Your task to perform on an android device: uninstall "Yahoo Mail" Image 0: 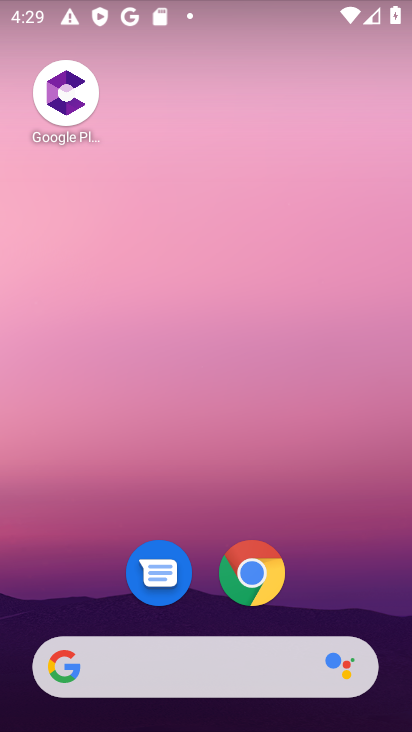
Step 0: drag from (261, 625) to (271, 232)
Your task to perform on an android device: uninstall "Yahoo Mail" Image 1: 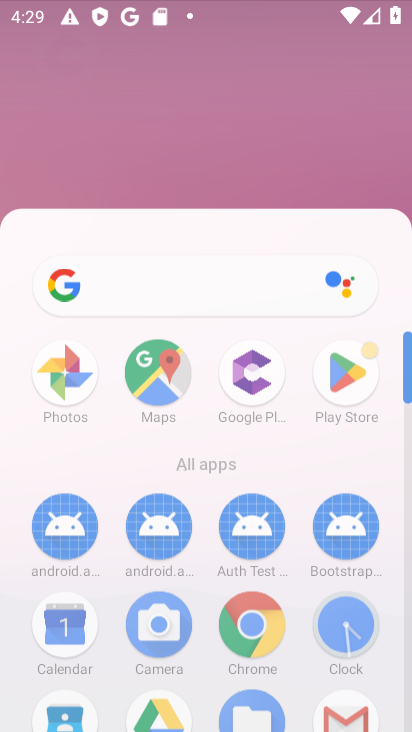
Step 1: drag from (247, 511) to (235, 285)
Your task to perform on an android device: uninstall "Yahoo Mail" Image 2: 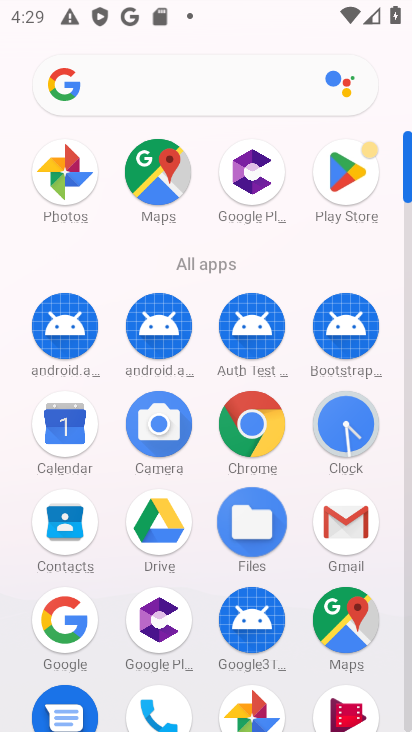
Step 2: drag from (244, 510) to (246, 351)
Your task to perform on an android device: uninstall "Yahoo Mail" Image 3: 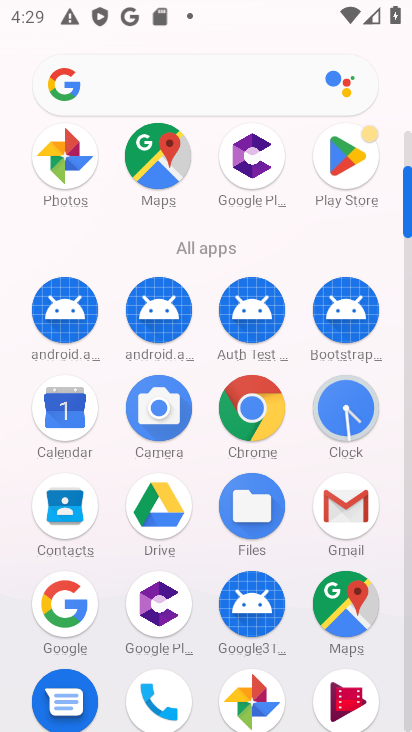
Step 3: click (345, 160)
Your task to perform on an android device: uninstall "Yahoo Mail" Image 4: 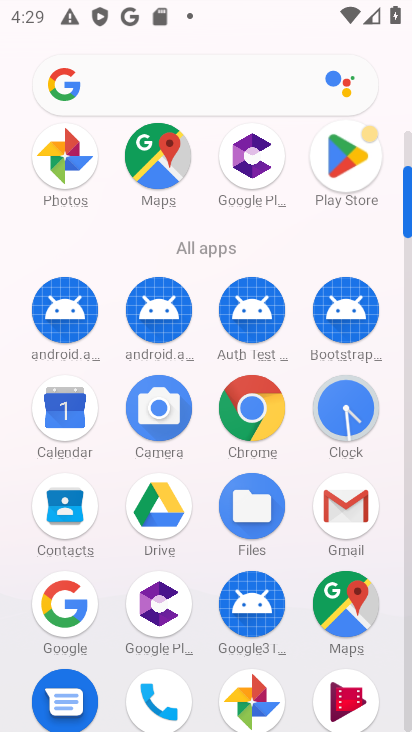
Step 4: click (345, 160)
Your task to perform on an android device: uninstall "Yahoo Mail" Image 5: 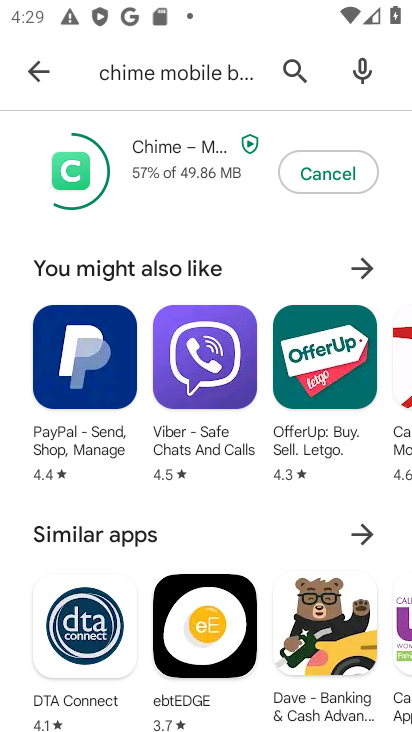
Step 5: click (43, 64)
Your task to perform on an android device: uninstall "Yahoo Mail" Image 6: 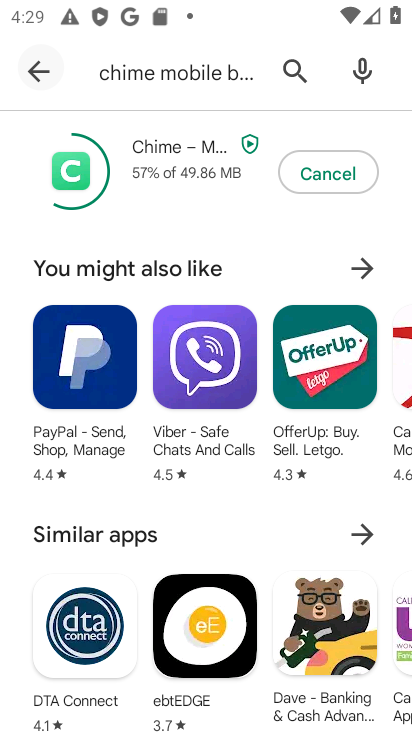
Step 6: click (42, 63)
Your task to perform on an android device: uninstall "Yahoo Mail" Image 7: 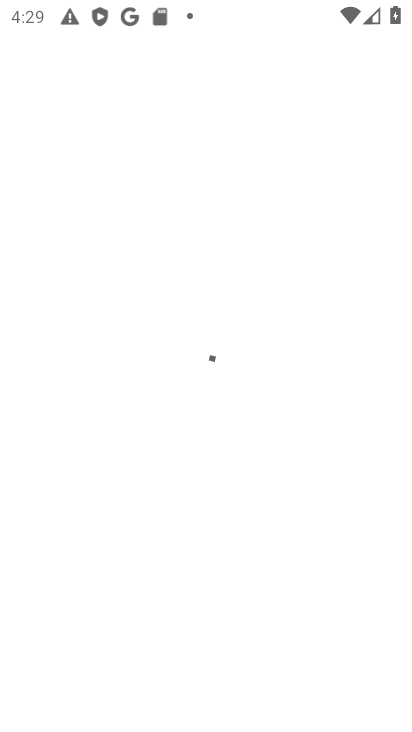
Step 7: click (42, 63)
Your task to perform on an android device: uninstall "Yahoo Mail" Image 8: 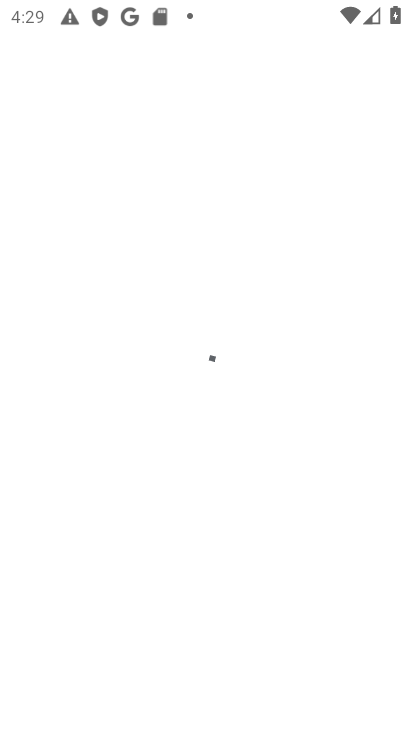
Step 8: click (42, 63)
Your task to perform on an android device: uninstall "Yahoo Mail" Image 9: 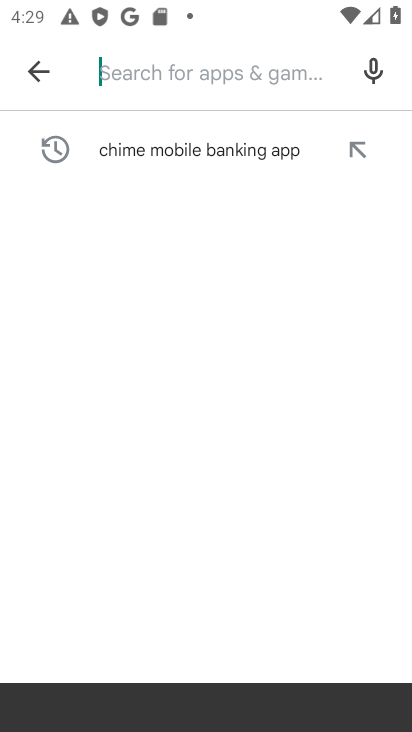
Step 9: click (146, 66)
Your task to perform on an android device: uninstall "Yahoo Mail" Image 10: 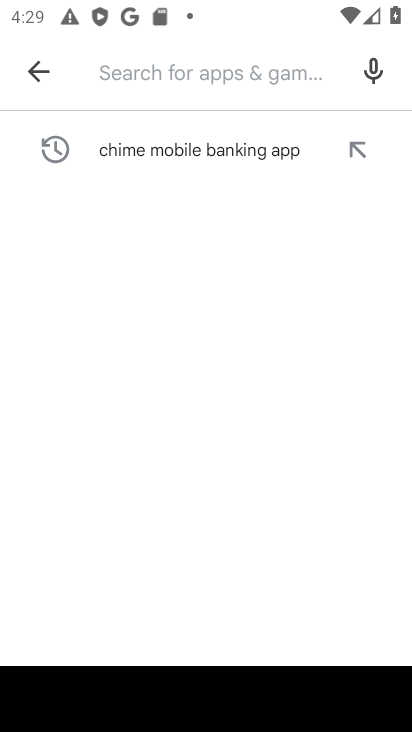
Step 10: click (146, 66)
Your task to perform on an android device: uninstall "Yahoo Mail" Image 11: 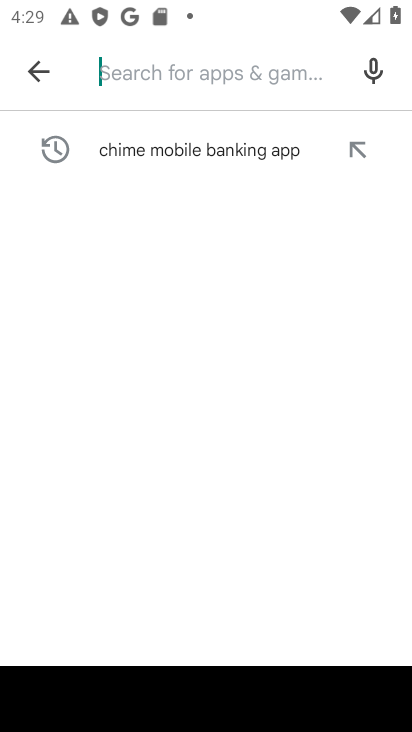
Step 11: click (146, 66)
Your task to perform on an android device: uninstall "Yahoo Mail" Image 12: 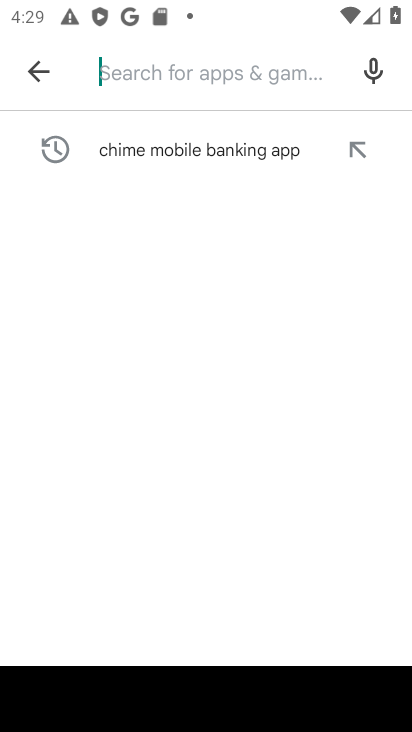
Step 12: type "yahoo mail"
Your task to perform on an android device: uninstall "Yahoo Mail" Image 13: 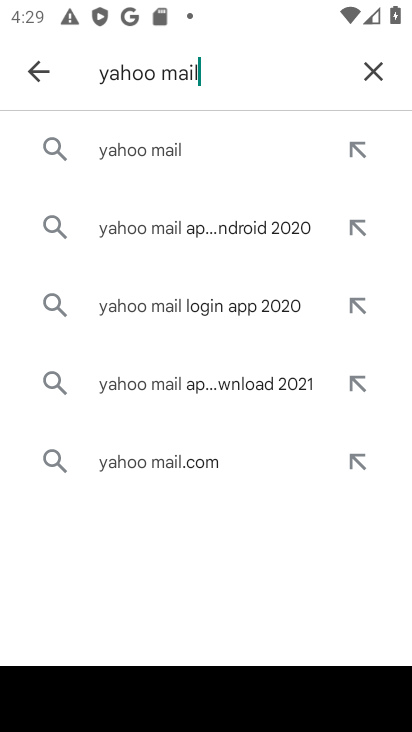
Step 13: click (167, 154)
Your task to perform on an android device: uninstall "Yahoo Mail" Image 14: 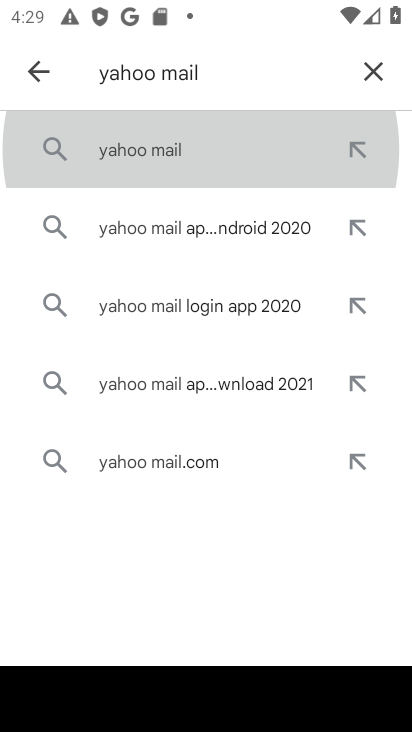
Step 14: click (166, 152)
Your task to perform on an android device: uninstall "Yahoo Mail" Image 15: 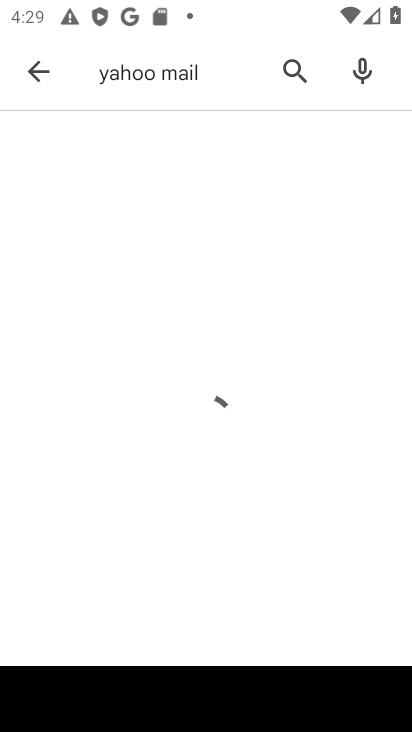
Step 15: click (166, 152)
Your task to perform on an android device: uninstall "Yahoo Mail" Image 16: 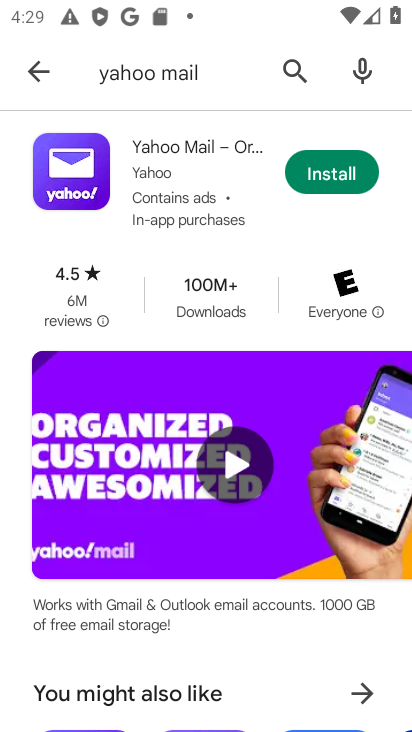
Step 16: click (303, 165)
Your task to perform on an android device: uninstall "Yahoo Mail" Image 17: 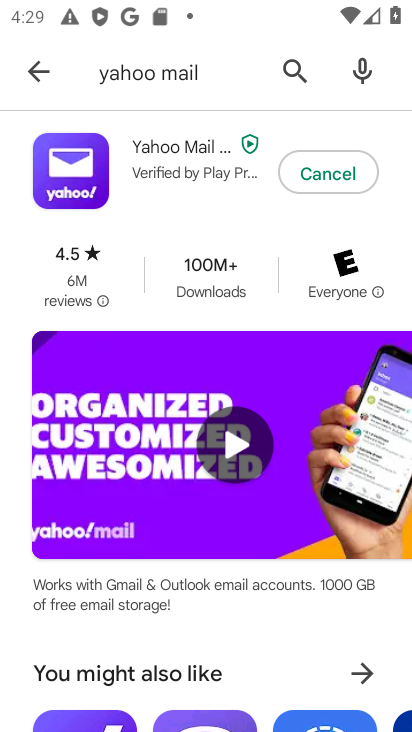
Step 17: click (304, 164)
Your task to perform on an android device: uninstall "Yahoo Mail" Image 18: 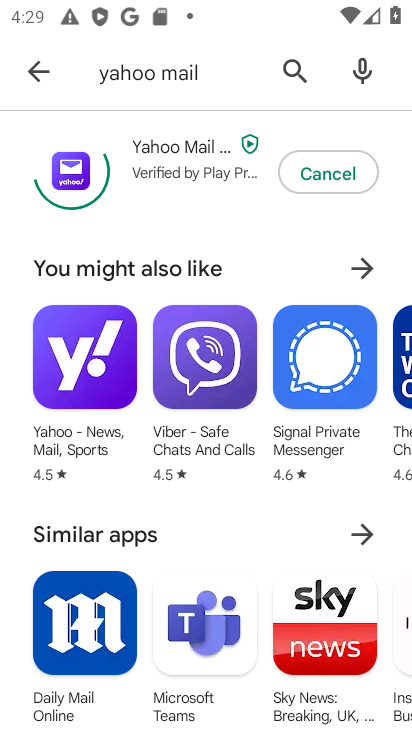
Step 18: click (318, 167)
Your task to perform on an android device: uninstall "Yahoo Mail" Image 19: 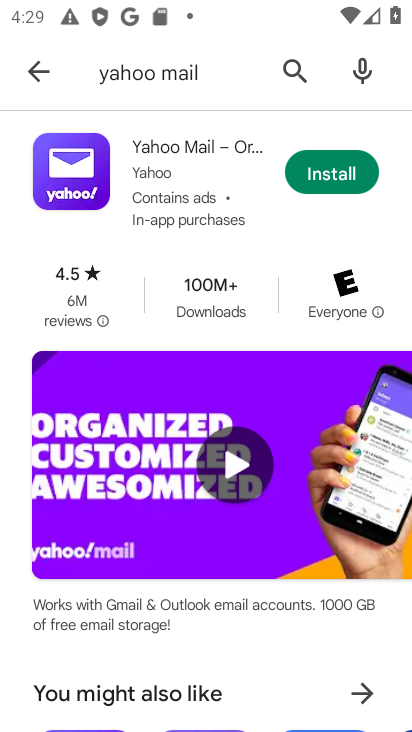
Step 19: task complete